Your task to perform on an android device: make emails show in primary in the gmail app Image 0: 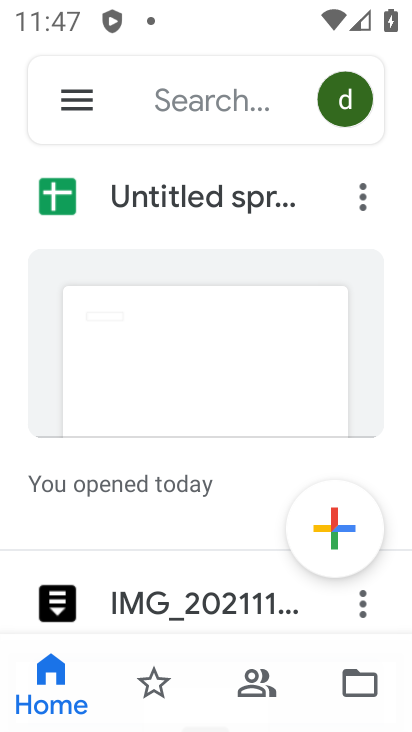
Step 0: press home button
Your task to perform on an android device: make emails show in primary in the gmail app Image 1: 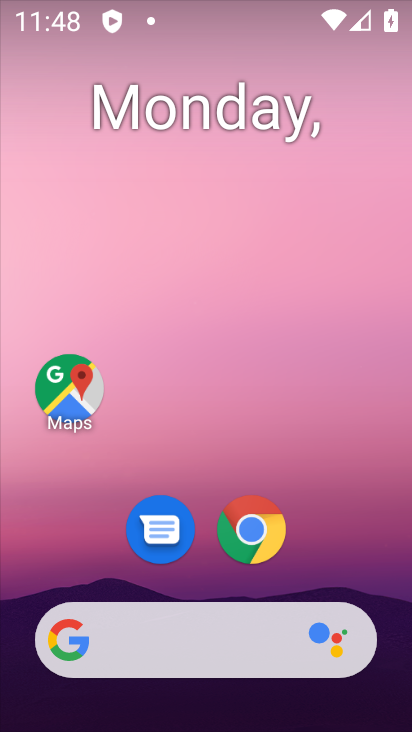
Step 1: drag from (400, 511) to (192, 4)
Your task to perform on an android device: make emails show in primary in the gmail app Image 2: 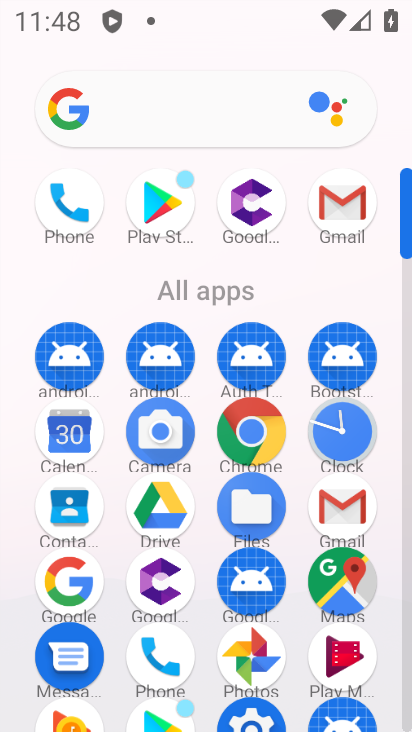
Step 2: click (339, 231)
Your task to perform on an android device: make emails show in primary in the gmail app Image 3: 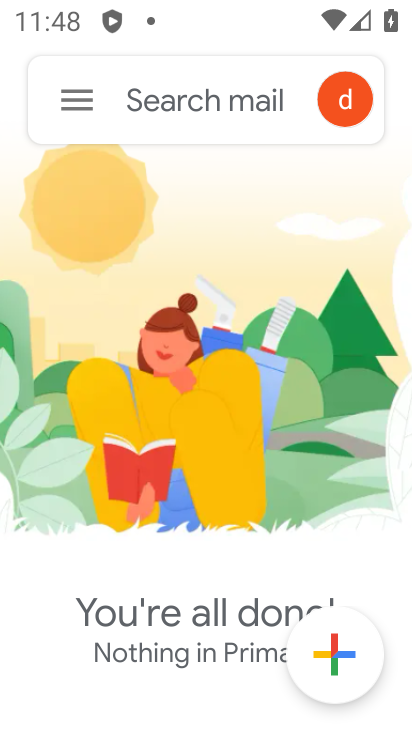
Step 3: click (83, 110)
Your task to perform on an android device: make emails show in primary in the gmail app Image 4: 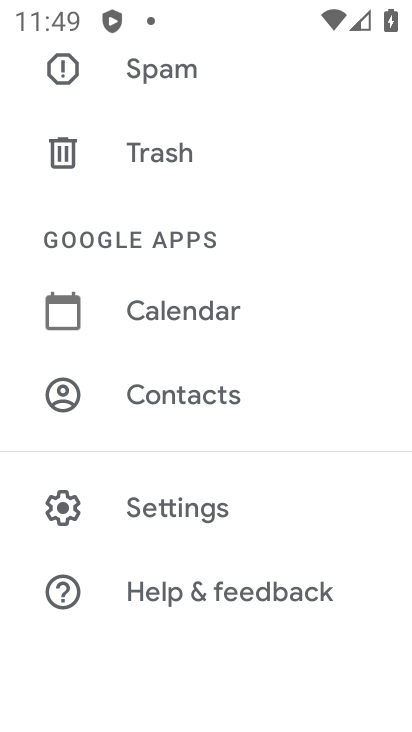
Step 4: task complete